Your task to perform on an android device: turn off notifications settings in the gmail app Image 0: 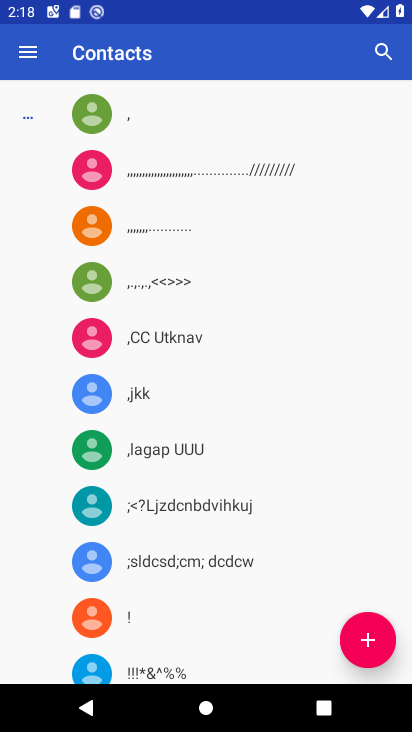
Step 0: press home button
Your task to perform on an android device: turn off notifications settings in the gmail app Image 1: 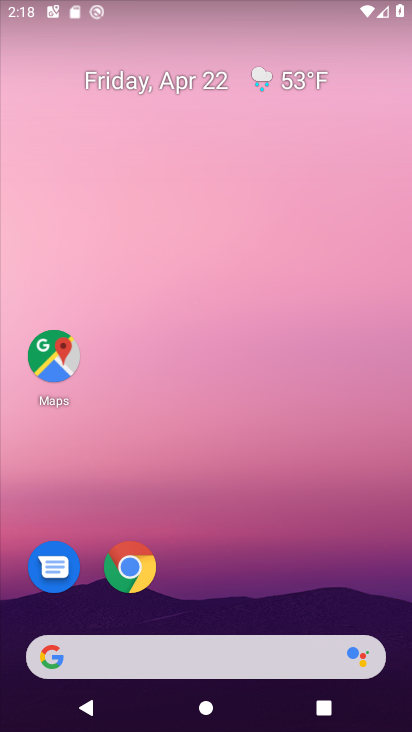
Step 1: drag from (264, 548) to (279, 146)
Your task to perform on an android device: turn off notifications settings in the gmail app Image 2: 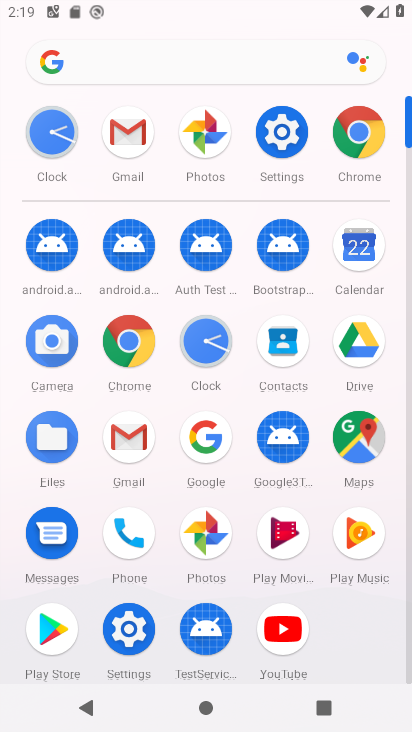
Step 2: click (128, 135)
Your task to perform on an android device: turn off notifications settings in the gmail app Image 3: 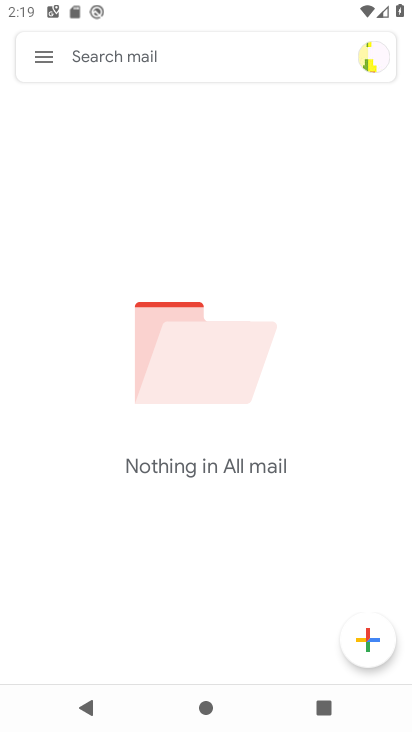
Step 3: click (48, 58)
Your task to perform on an android device: turn off notifications settings in the gmail app Image 4: 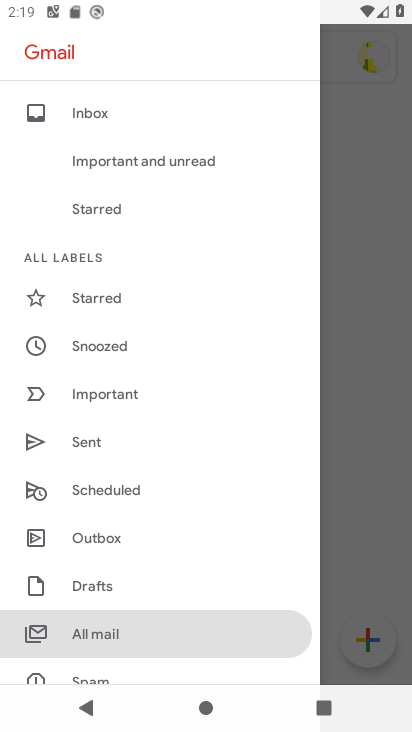
Step 4: drag from (181, 541) to (204, 153)
Your task to perform on an android device: turn off notifications settings in the gmail app Image 5: 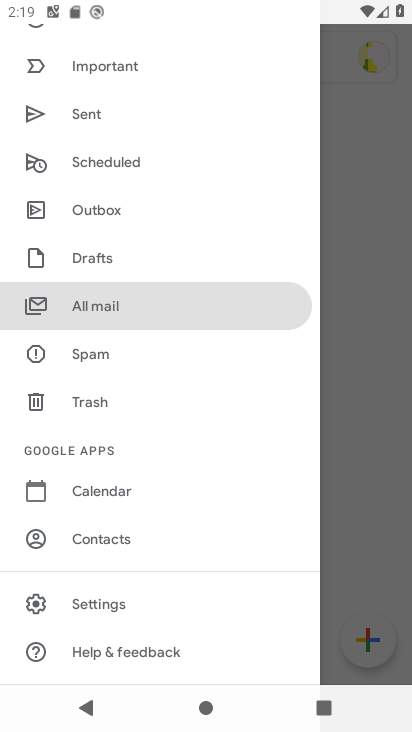
Step 5: click (132, 599)
Your task to perform on an android device: turn off notifications settings in the gmail app Image 6: 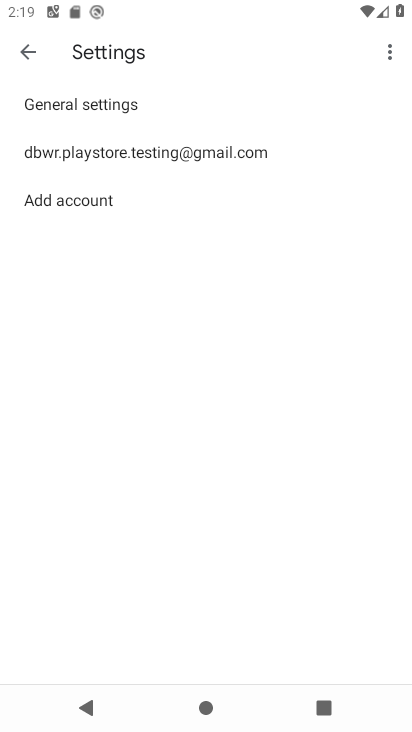
Step 6: click (240, 155)
Your task to perform on an android device: turn off notifications settings in the gmail app Image 7: 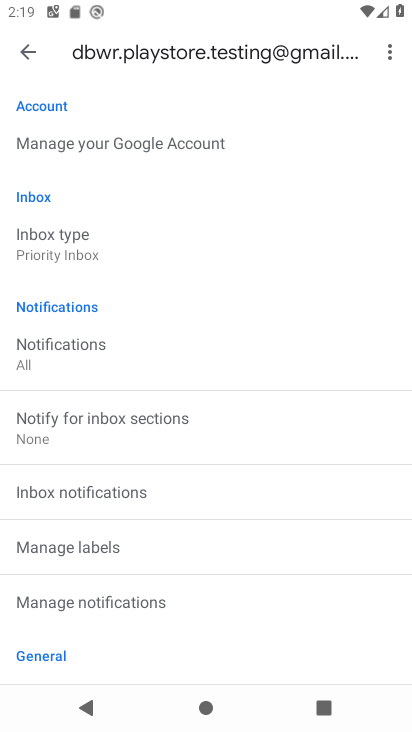
Step 7: click (193, 600)
Your task to perform on an android device: turn off notifications settings in the gmail app Image 8: 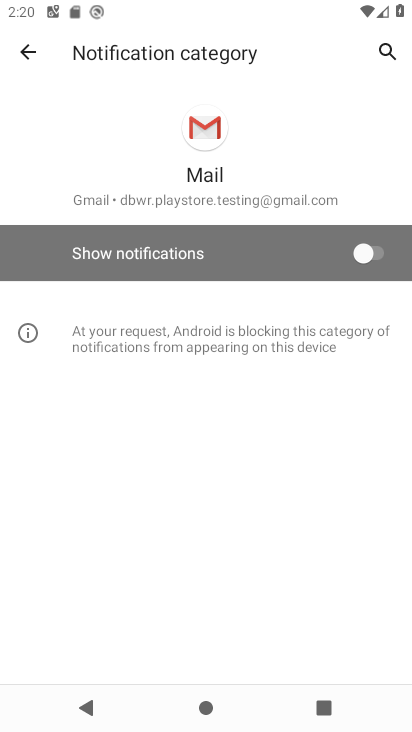
Step 8: task complete